Your task to perform on an android device: turn on bluetooth scan Image 0: 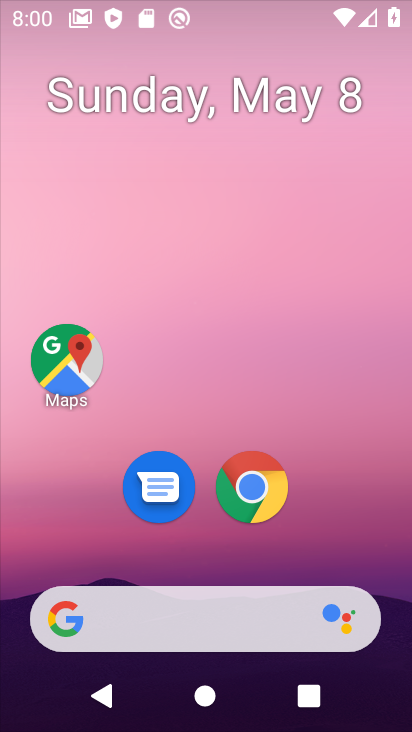
Step 0: drag from (363, 536) to (367, 431)
Your task to perform on an android device: turn on bluetooth scan Image 1: 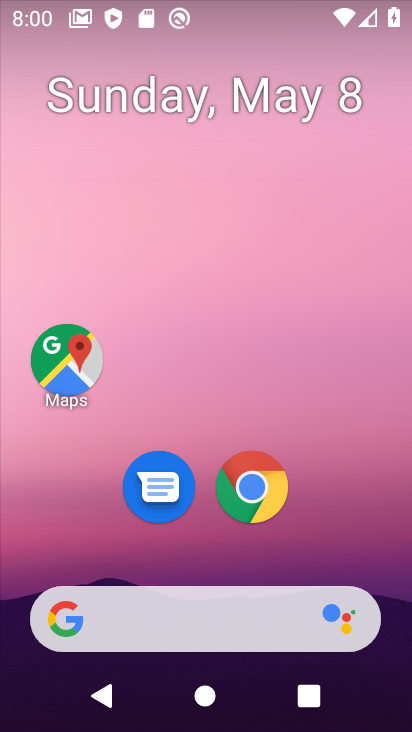
Step 1: drag from (323, 521) to (341, 27)
Your task to perform on an android device: turn on bluetooth scan Image 2: 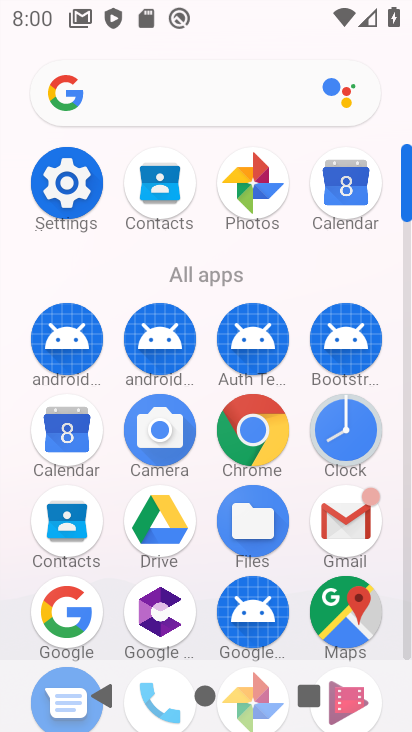
Step 2: click (77, 193)
Your task to perform on an android device: turn on bluetooth scan Image 3: 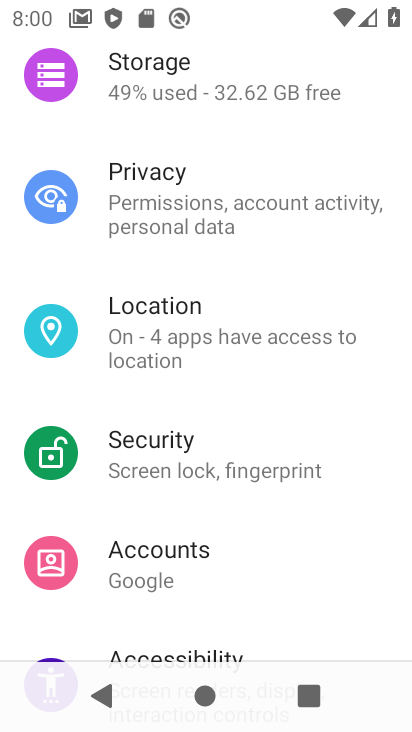
Step 3: drag from (251, 533) to (282, 245)
Your task to perform on an android device: turn on bluetooth scan Image 4: 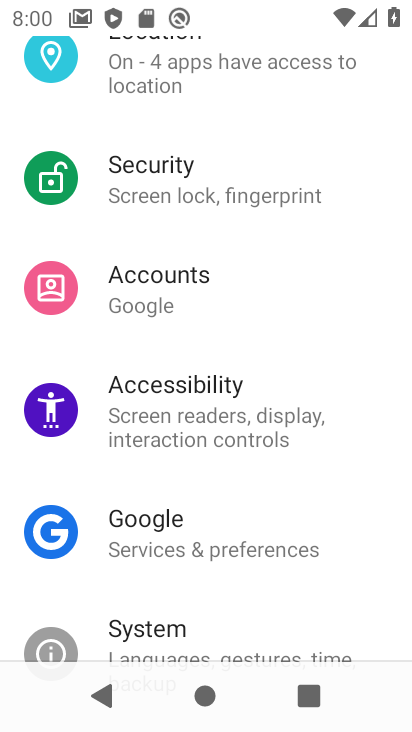
Step 4: drag from (249, 631) to (268, 411)
Your task to perform on an android device: turn on bluetooth scan Image 5: 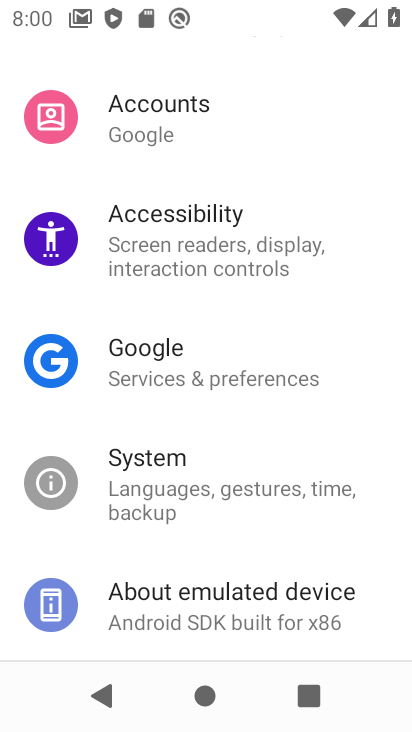
Step 5: drag from (255, 323) to (241, 573)
Your task to perform on an android device: turn on bluetooth scan Image 6: 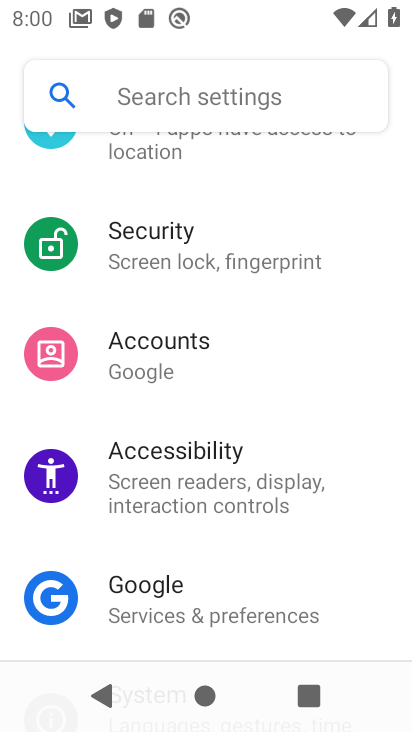
Step 6: drag from (248, 307) to (242, 474)
Your task to perform on an android device: turn on bluetooth scan Image 7: 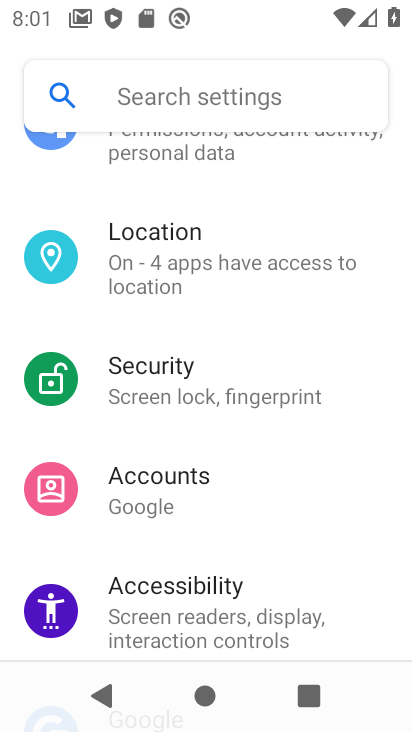
Step 7: click (235, 266)
Your task to perform on an android device: turn on bluetooth scan Image 8: 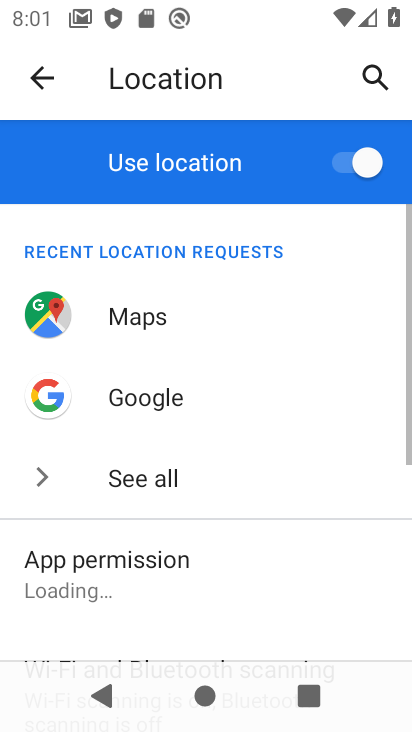
Step 8: drag from (226, 571) to (285, 298)
Your task to perform on an android device: turn on bluetooth scan Image 9: 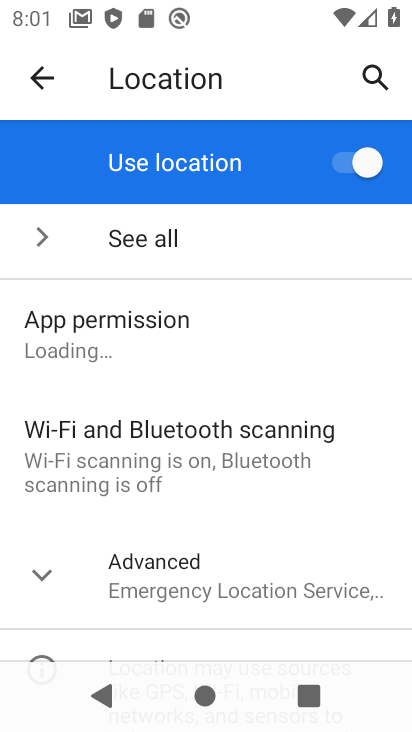
Step 9: click (261, 454)
Your task to perform on an android device: turn on bluetooth scan Image 10: 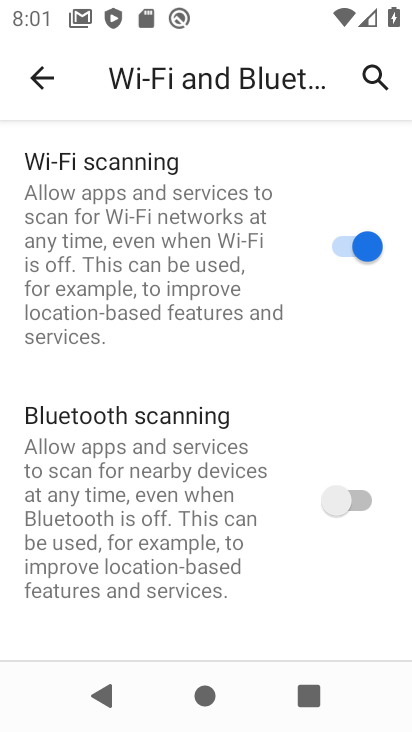
Step 10: click (339, 482)
Your task to perform on an android device: turn on bluetooth scan Image 11: 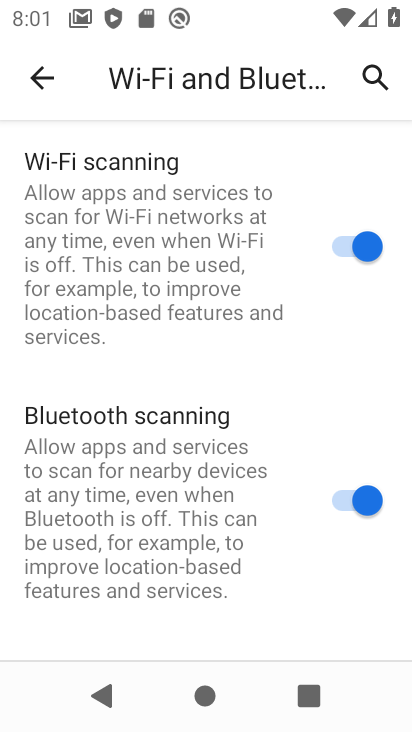
Step 11: task complete